Your task to perform on an android device: Open my contact list Image 0: 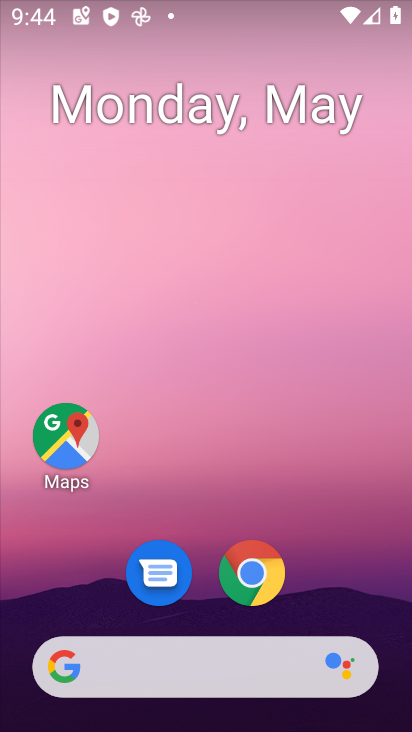
Step 0: drag from (346, 591) to (334, 48)
Your task to perform on an android device: Open my contact list Image 1: 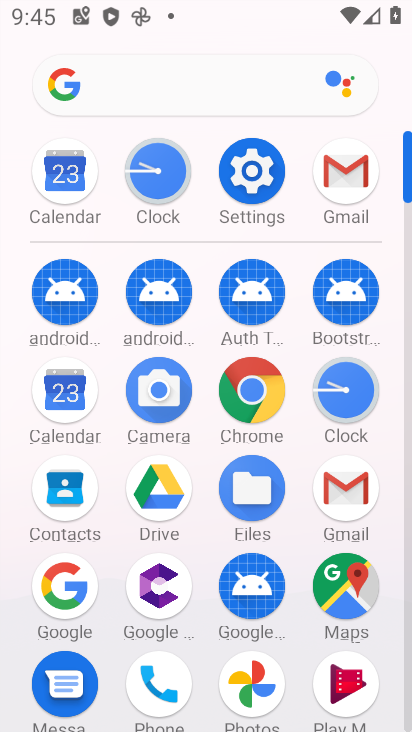
Step 1: click (405, 600)
Your task to perform on an android device: Open my contact list Image 2: 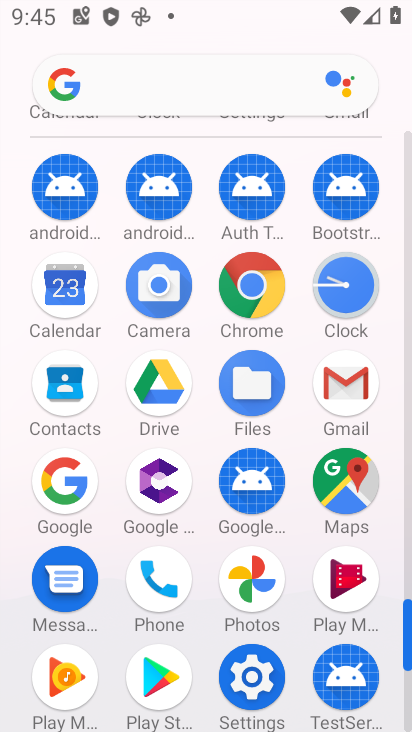
Step 2: click (42, 421)
Your task to perform on an android device: Open my contact list Image 3: 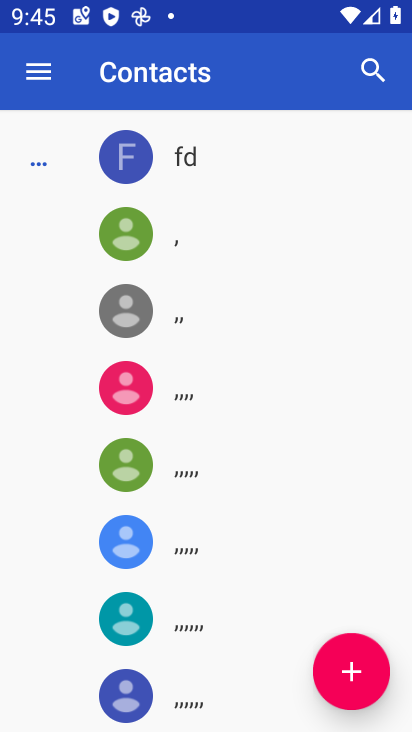
Step 3: task complete